Your task to perform on an android device: Go to Wikipedia Image 0: 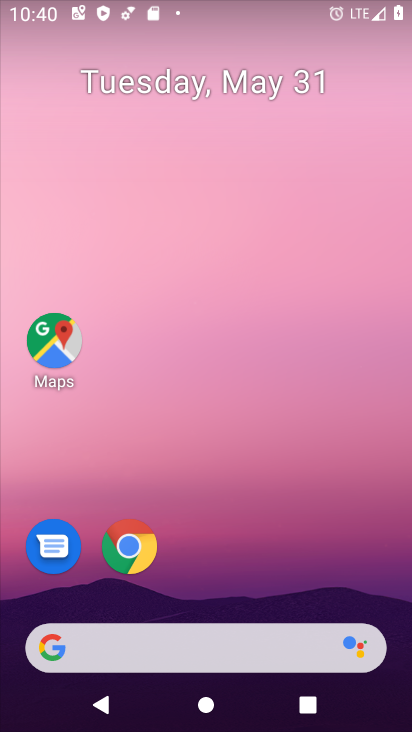
Step 0: drag from (209, 626) to (165, 20)
Your task to perform on an android device: Go to Wikipedia Image 1: 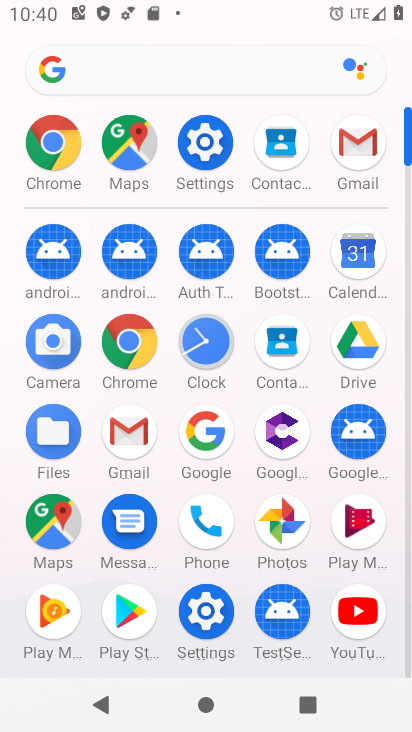
Step 1: click (141, 338)
Your task to perform on an android device: Go to Wikipedia Image 2: 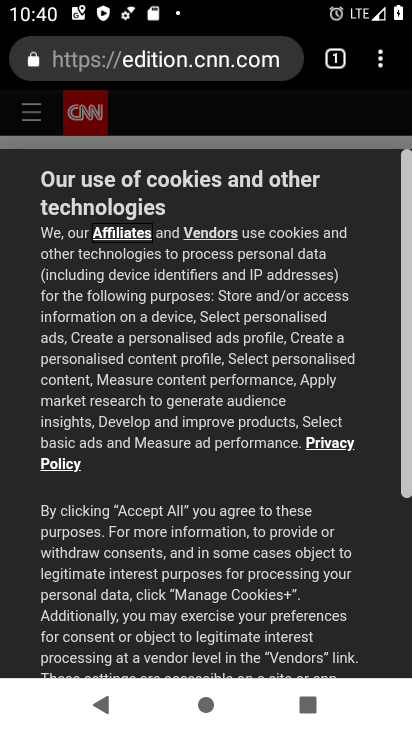
Step 2: drag from (380, 71) to (162, 103)
Your task to perform on an android device: Go to Wikipedia Image 3: 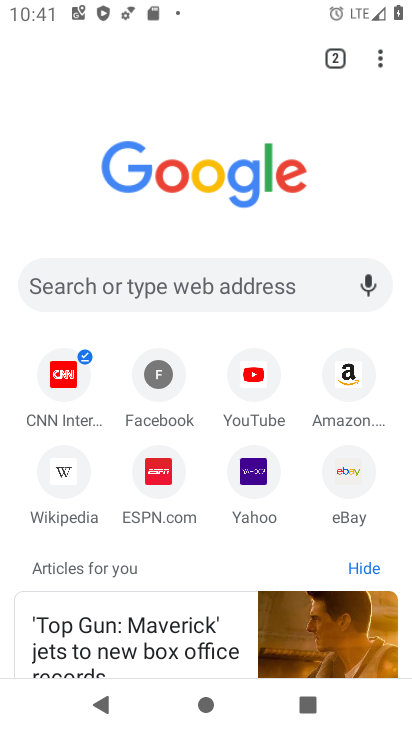
Step 3: click (67, 473)
Your task to perform on an android device: Go to Wikipedia Image 4: 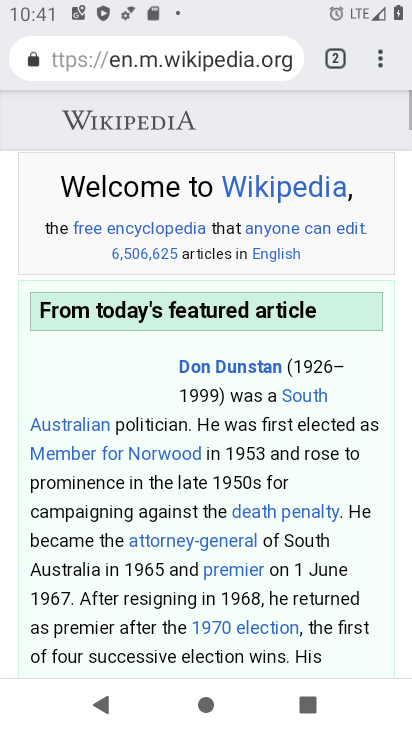
Step 4: task complete